Your task to perform on an android device: Open calendar and show me the first week of next month Image 0: 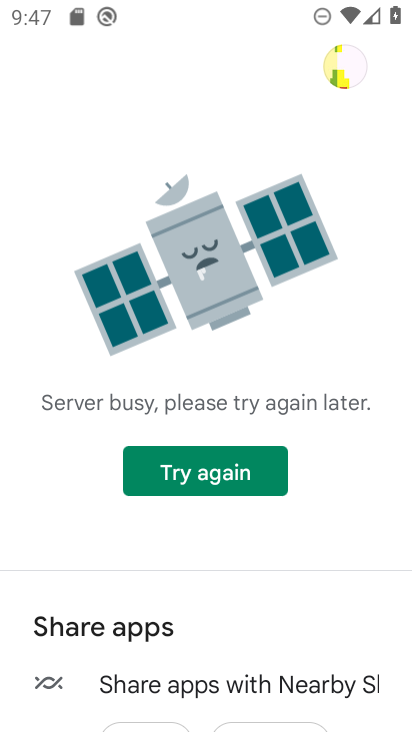
Step 0: press home button
Your task to perform on an android device: Open calendar and show me the first week of next month Image 1: 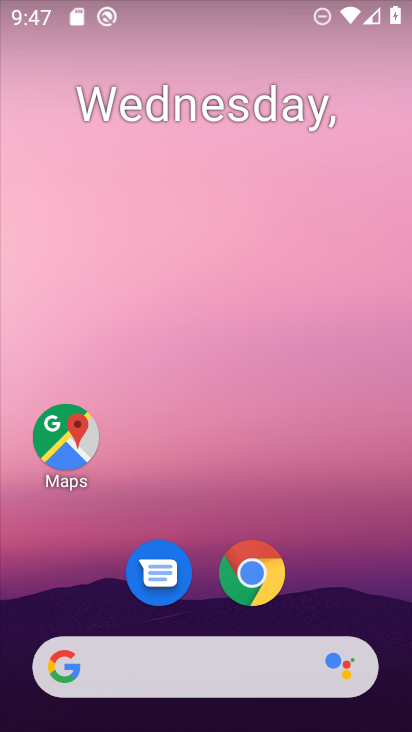
Step 1: drag from (364, 402) to (358, 180)
Your task to perform on an android device: Open calendar and show me the first week of next month Image 2: 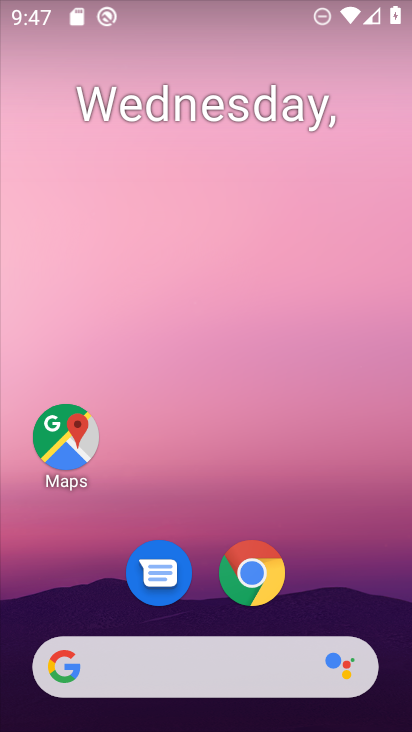
Step 2: drag from (375, 495) to (361, 180)
Your task to perform on an android device: Open calendar and show me the first week of next month Image 3: 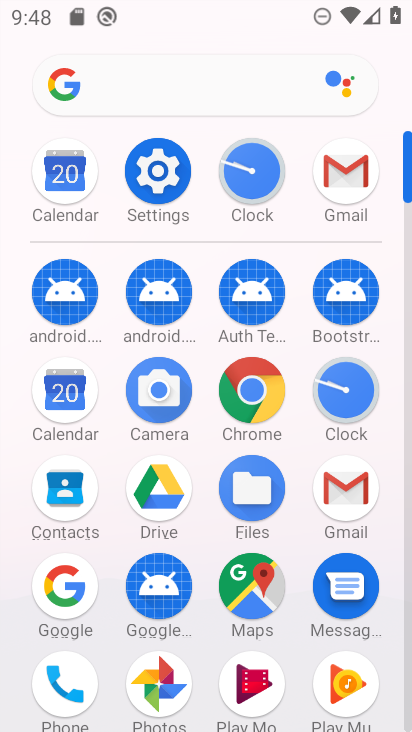
Step 3: click (68, 386)
Your task to perform on an android device: Open calendar and show me the first week of next month Image 4: 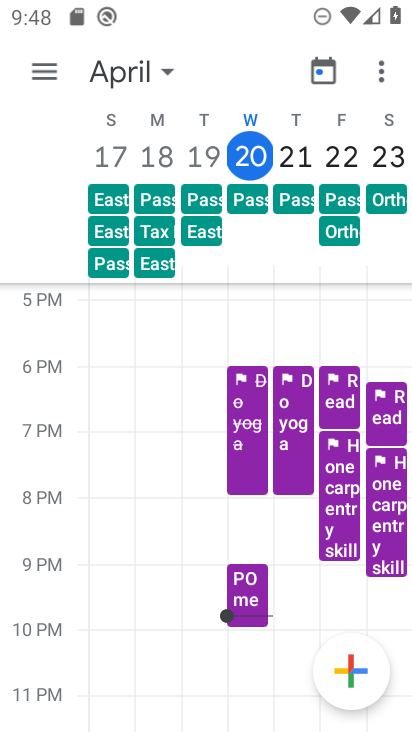
Step 4: click (174, 68)
Your task to perform on an android device: Open calendar and show me the first week of next month Image 5: 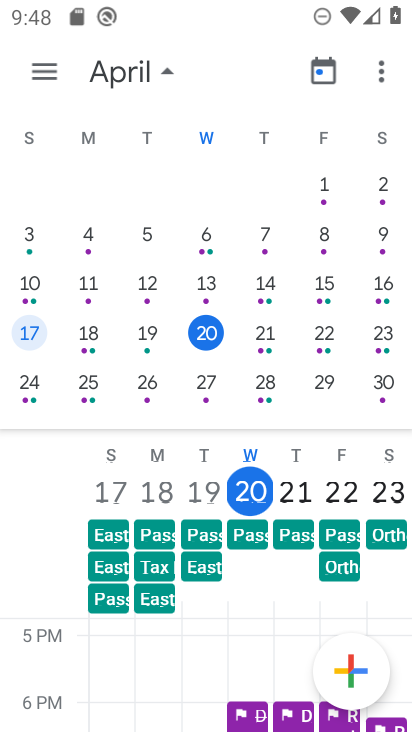
Step 5: click (32, 230)
Your task to perform on an android device: Open calendar and show me the first week of next month Image 6: 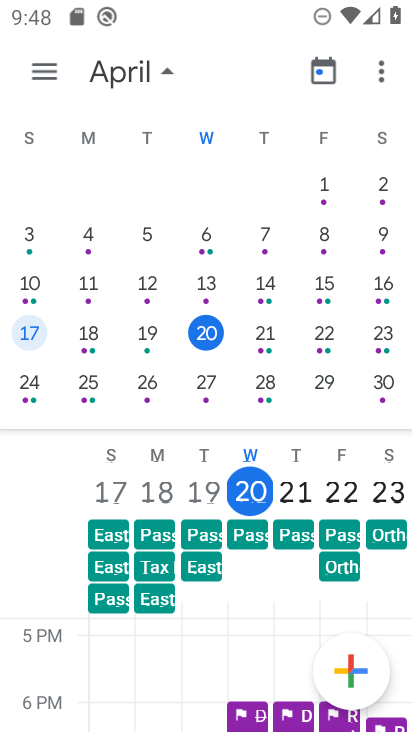
Step 6: click (116, 223)
Your task to perform on an android device: Open calendar and show me the first week of next month Image 7: 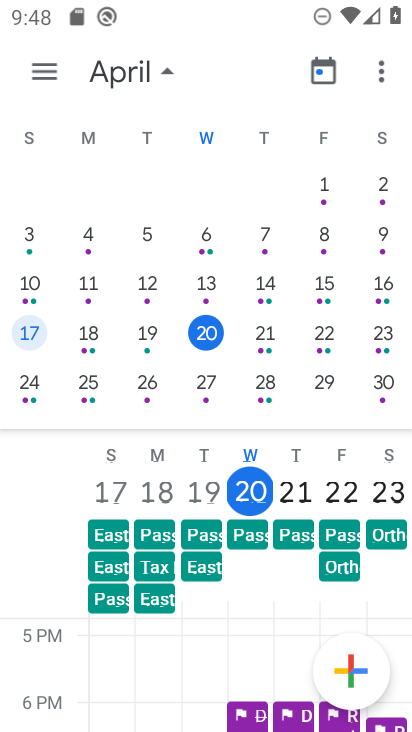
Step 7: drag from (310, 238) to (14, 247)
Your task to perform on an android device: Open calendar and show me the first week of next month Image 8: 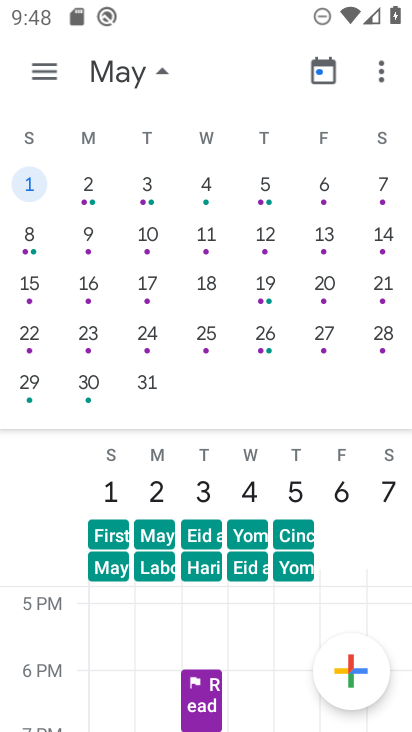
Step 8: click (28, 185)
Your task to perform on an android device: Open calendar and show me the first week of next month Image 9: 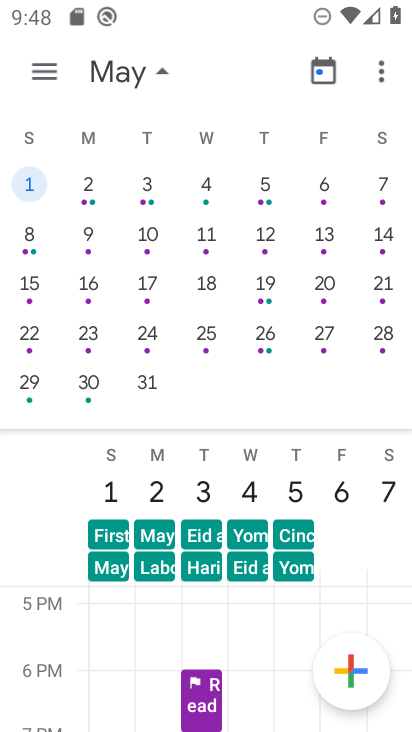
Step 9: click (46, 74)
Your task to perform on an android device: Open calendar and show me the first week of next month Image 10: 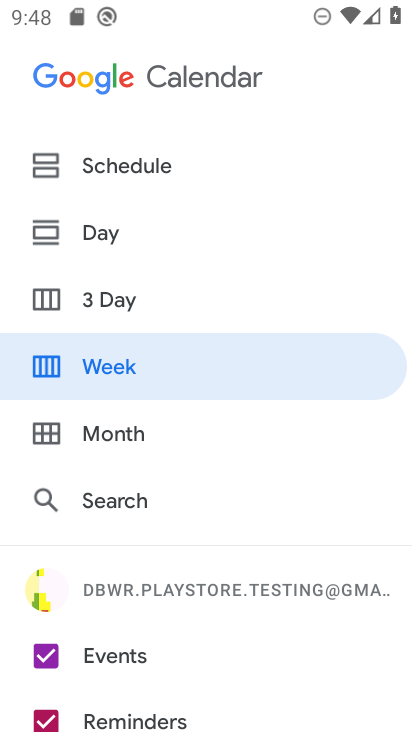
Step 10: click (88, 374)
Your task to perform on an android device: Open calendar and show me the first week of next month Image 11: 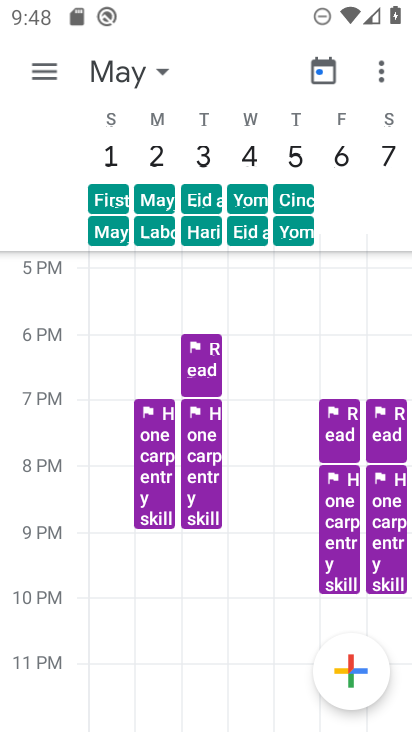
Step 11: task complete